Your task to perform on an android device: stop showing notifications on the lock screen Image 0: 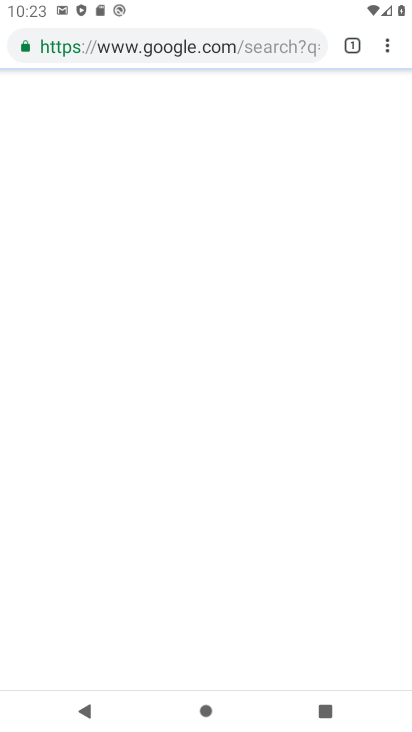
Step 0: press home button
Your task to perform on an android device: stop showing notifications on the lock screen Image 1: 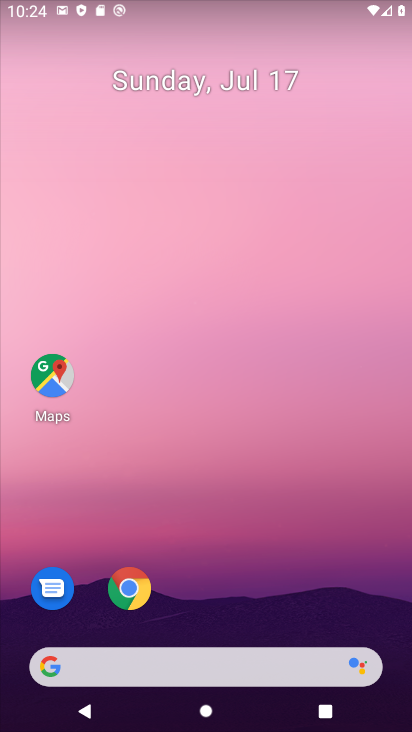
Step 1: drag from (247, 590) to (310, 333)
Your task to perform on an android device: stop showing notifications on the lock screen Image 2: 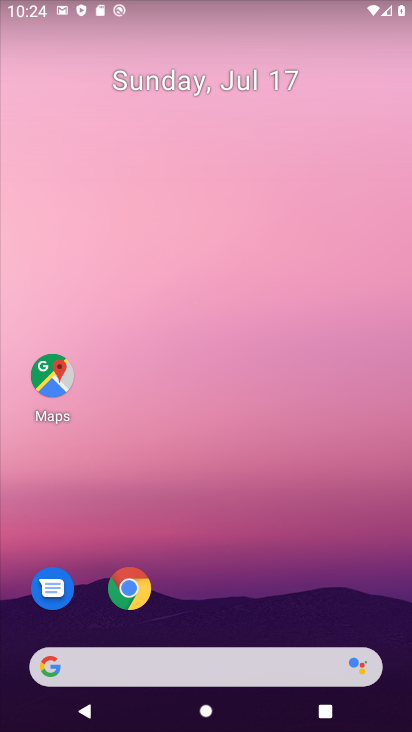
Step 2: drag from (264, 664) to (282, 98)
Your task to perform on an android device: stop showing notifications on the lock screen Image 3: 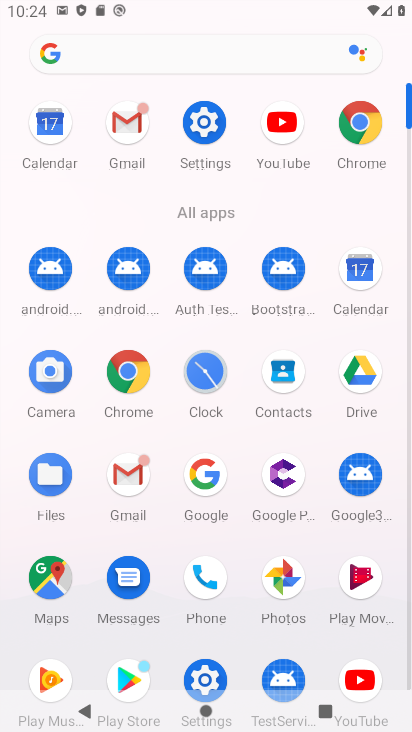
Step 3: click (200, 674)
Your task to perform on an android device: stop showing notifications on the lock screen Image 4: 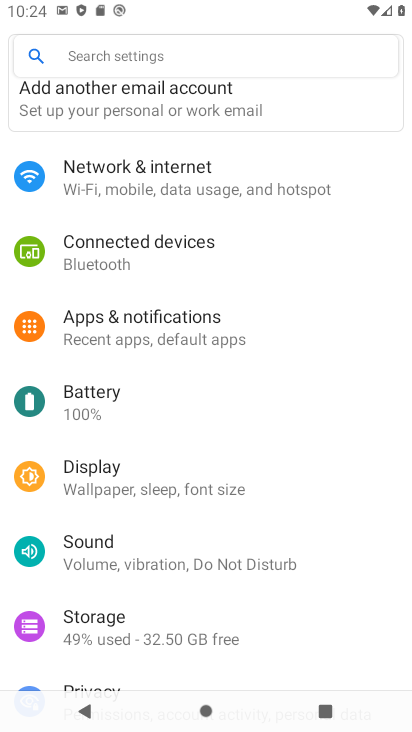
Step 4: click (164, 346)
Your task to perform on an android device: stop showing notifications on the lock screen Image 5: 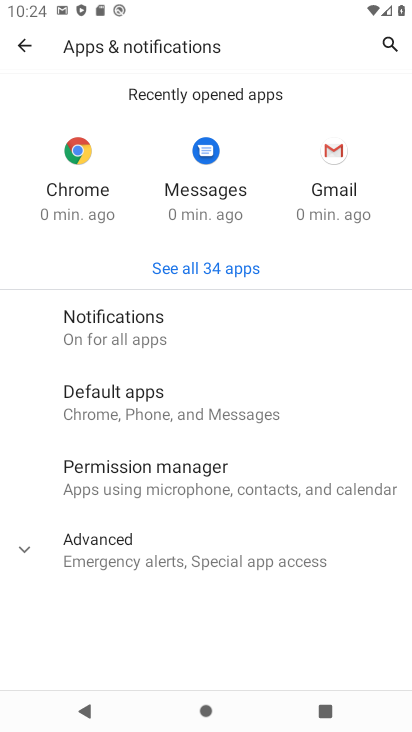
Step 5: click (122, 340)
Your task to perform on an android device: stop showing notifications on the lock screen Image 6: 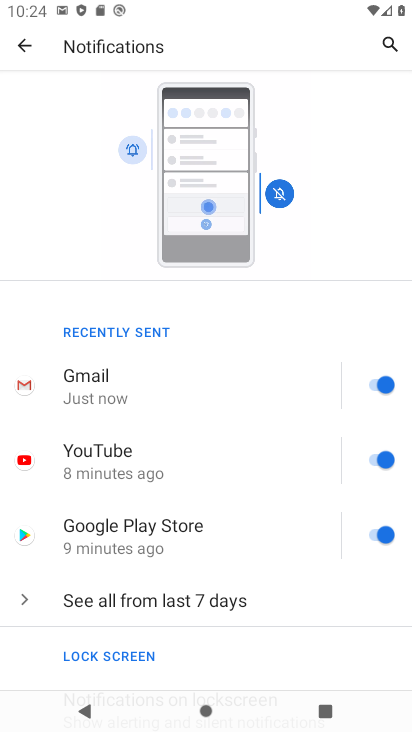
Step 6: drag from (202, 614) to (189, 110)
Your task to perform on an android device: stop showing notifications on the lock screen Image 7: 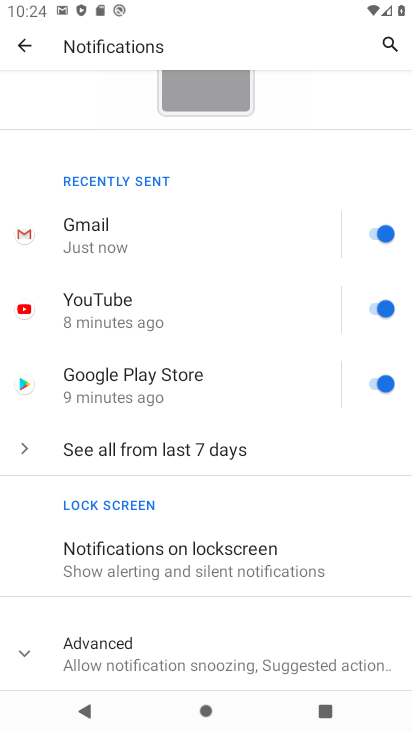
Step 7: click (76, 566)
Your task to perform on an android device: stop showing notifications on the lock screen Image 8: 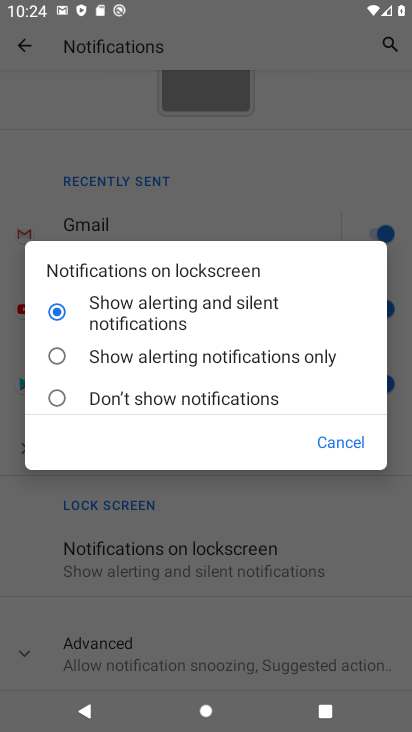
Step 8: click (103, 399)
Your task to perform on an android device: stop showing notifications on the lock screen Image 9: 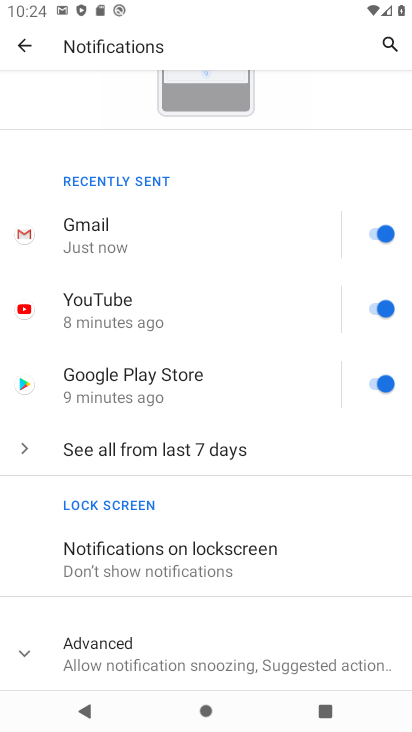
Step 9: task complete